Your task to perform on an android device: Open calendar and show me the first week of next month Image 0: 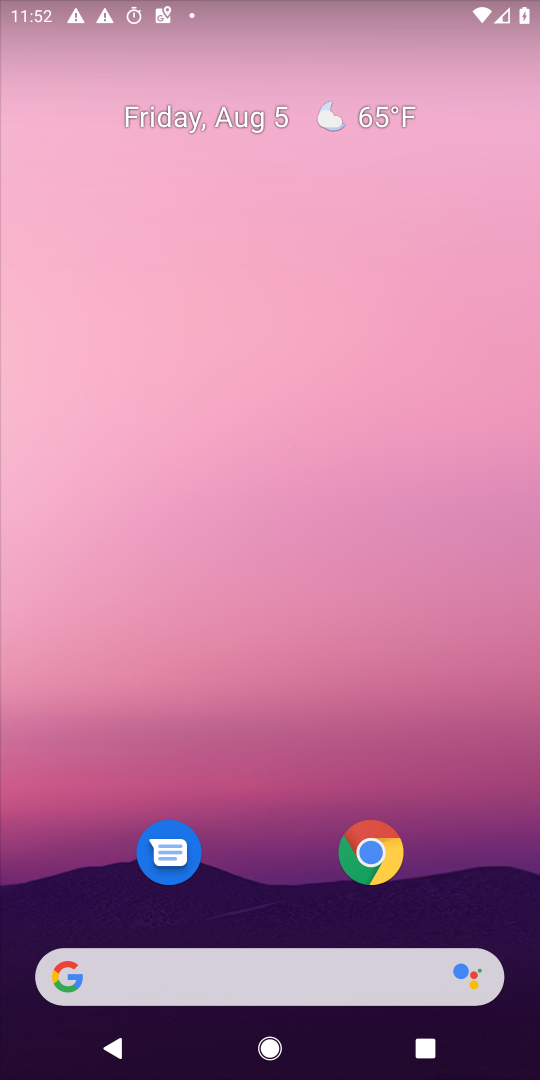
Step 0: drag from (303, 1014) to (331, 365)
Your task to perform on an android device: Open calendar and show me the first week of next month Image 1: 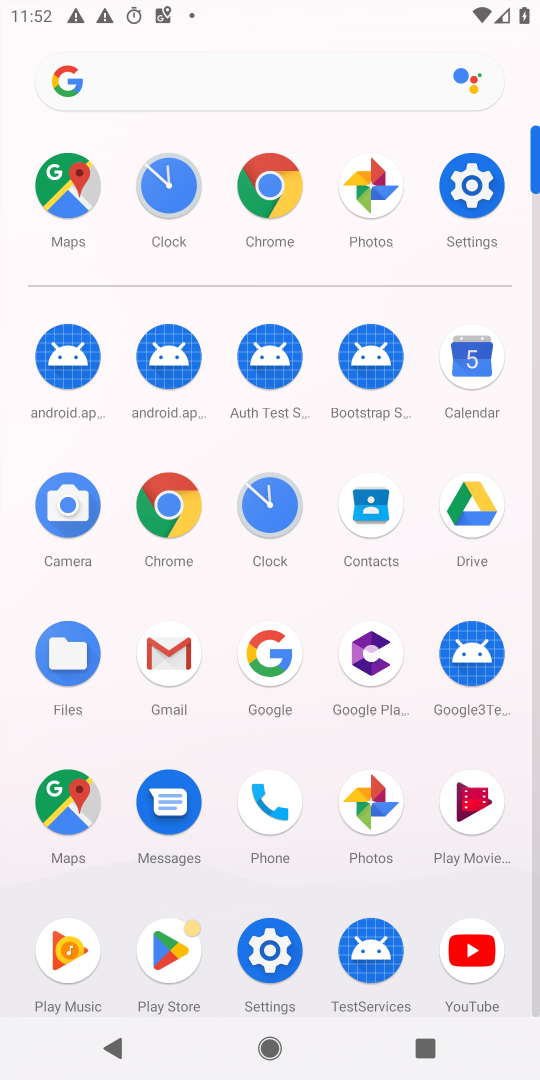
Step 1: click (457, 388)
Your task to perform on an android device: Open calendar and show me the first week of next month Image 2: 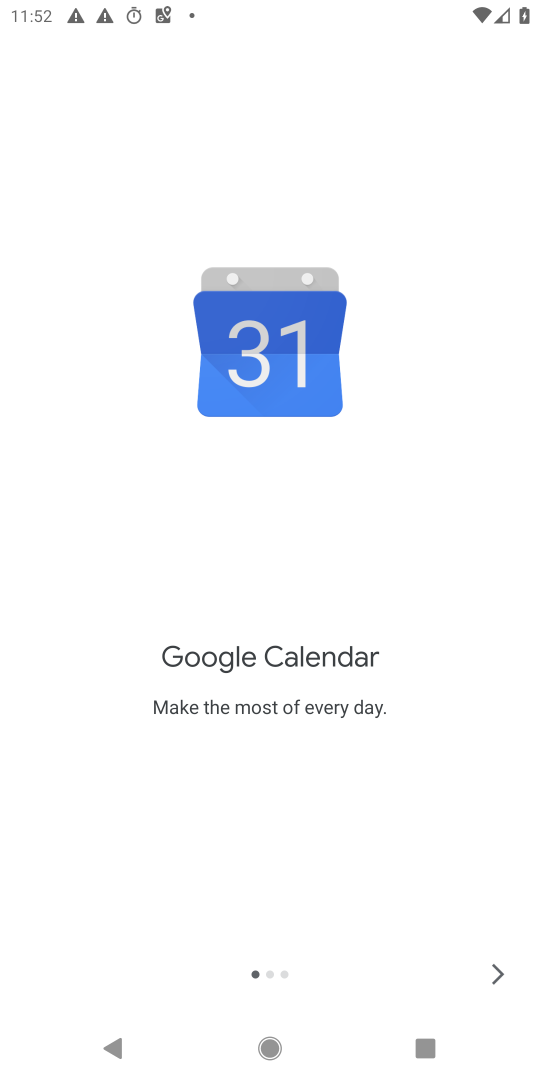
Step 2: click (488, 985)
Your task to perform on an android device: Open calendar and show me the first week of next month Image 3: 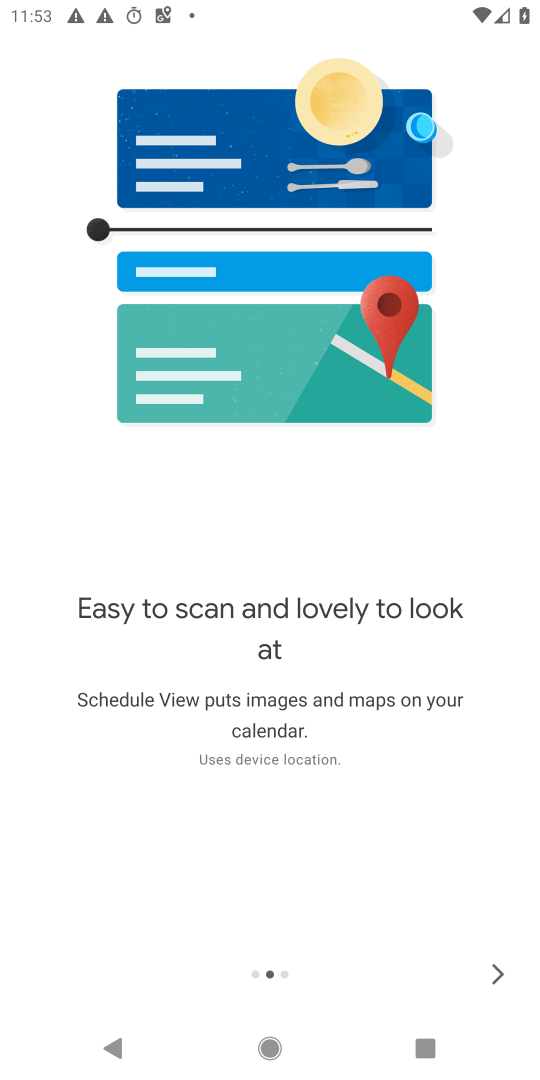
Step 3: click (493, 974)
Your task to perform on an android device: Open calendar and show me the first week of next month Image 4: 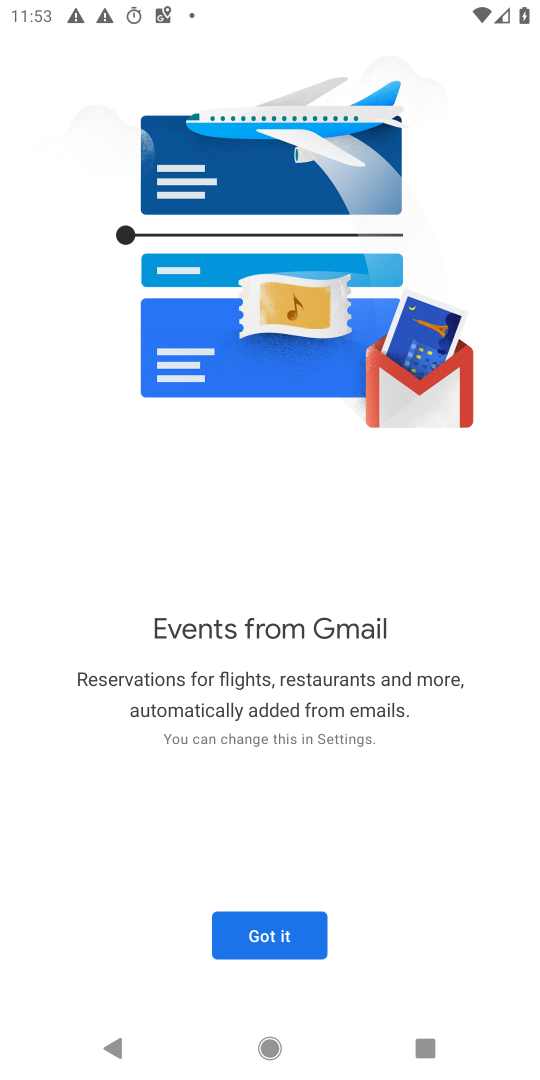
Step 4: click (254, 937)
Your task to perform on an android device: Open calendar and show me the first week of next month Image 5: 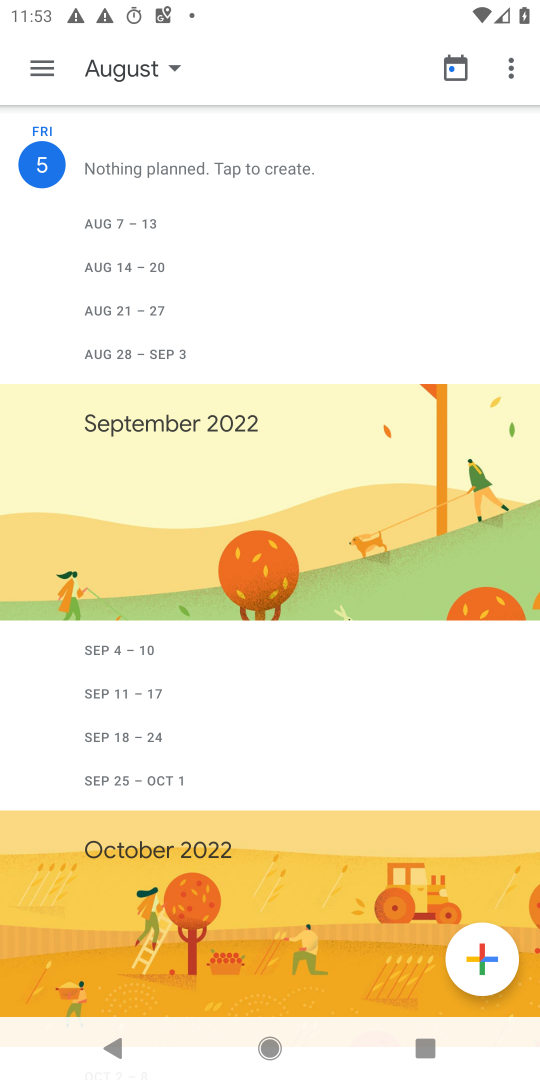
Step 5: click (46, 73)
Your task to perform on an android device: Open calendar and show me the first week of next month Image 6: 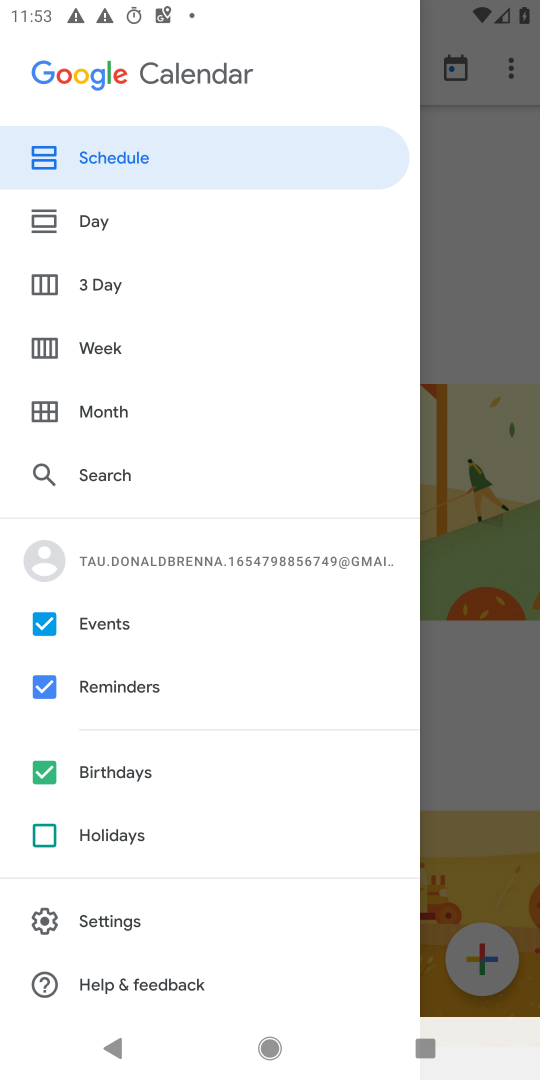
Step 6: click (121, 414)
Your task to perform on an android device: Open calendar and show me the first week of next month Image 7: 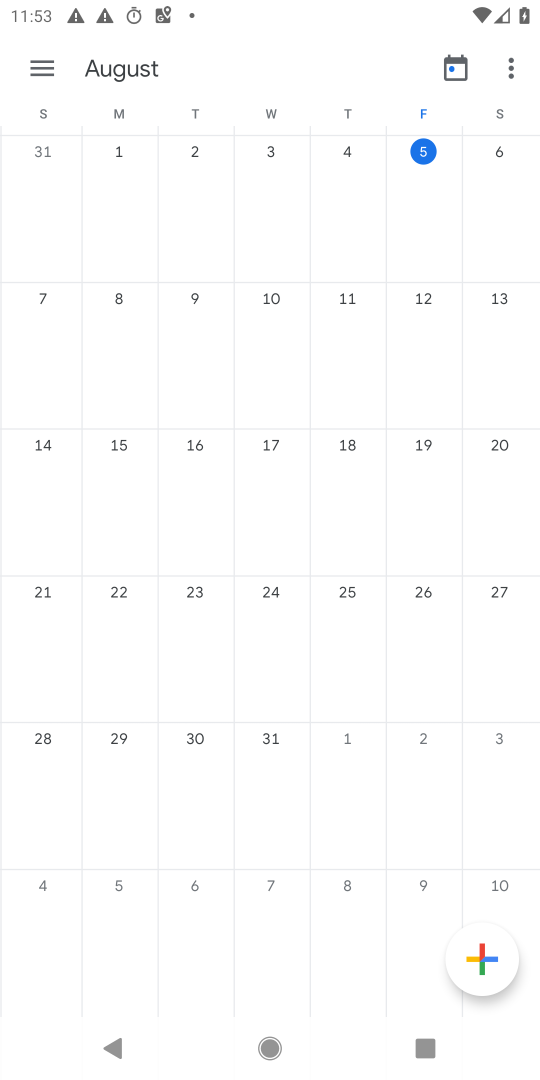
Step 7: drag from (455, 657) to (0, 665)
Your task to perform on an android device: Open calendar and show me the first week of next month Image 8: 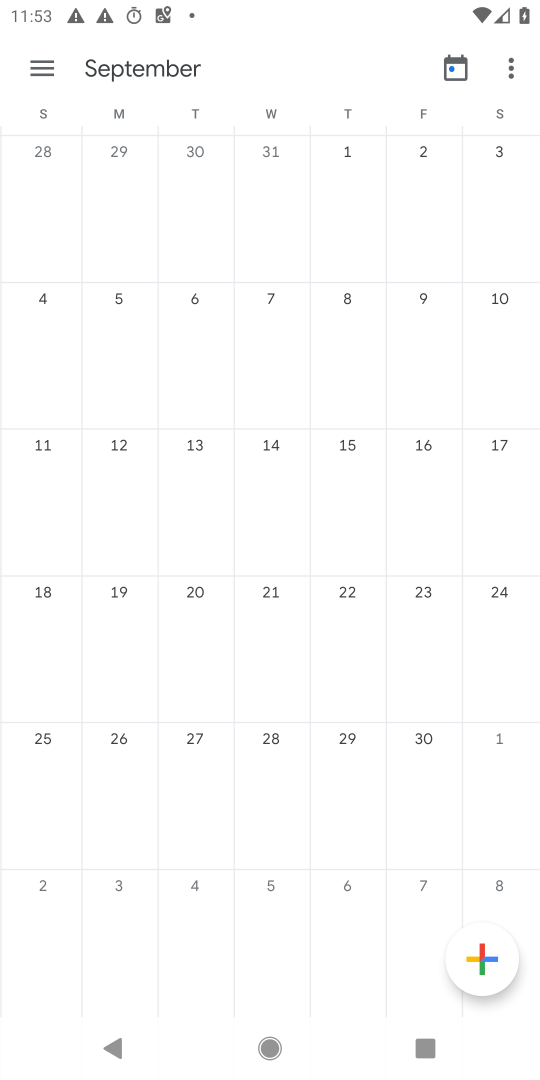
Step 8: drag from (528, 575) to (398, 640)
Your task to perform on an android device: Open calendar and show me the first week of next month Image 9: 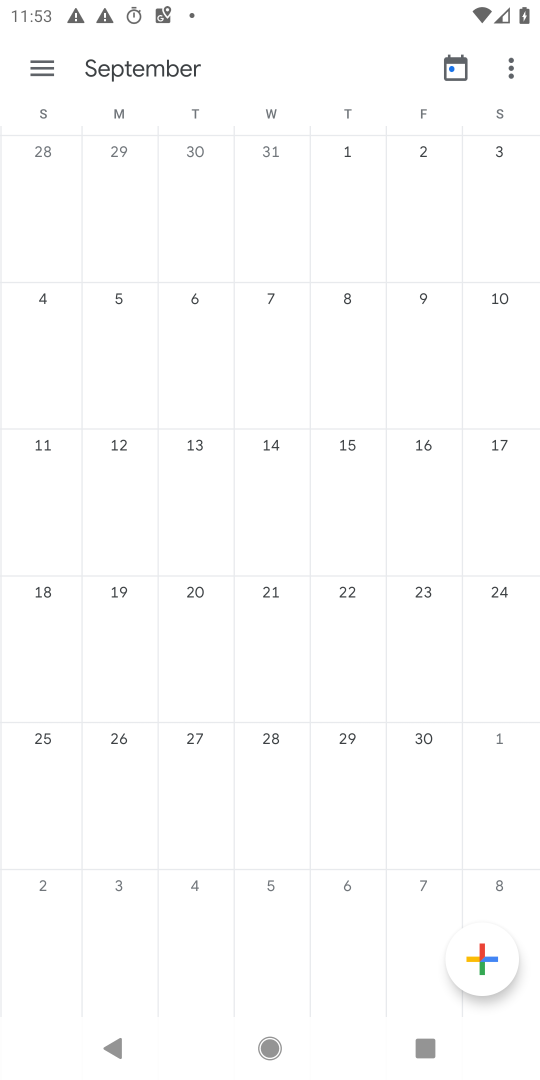
Step 9: click (121, 307)
Your task to perform on an android device: Open calendar and show me the first week of next month Image 10: 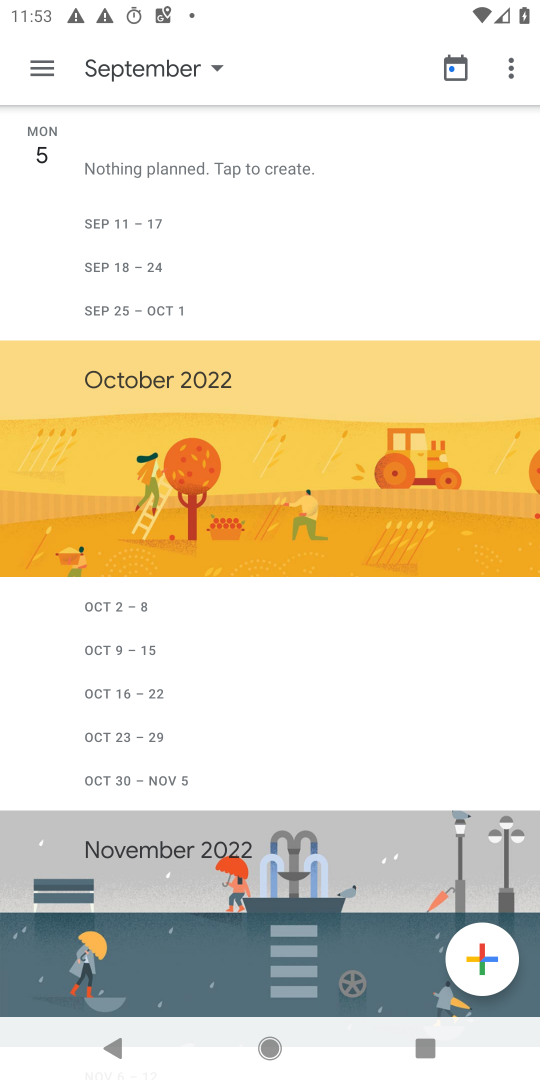
Step 10: task complete